Your task to perform on an android device: Open Google Maps and go to "Timeline" Image 0: 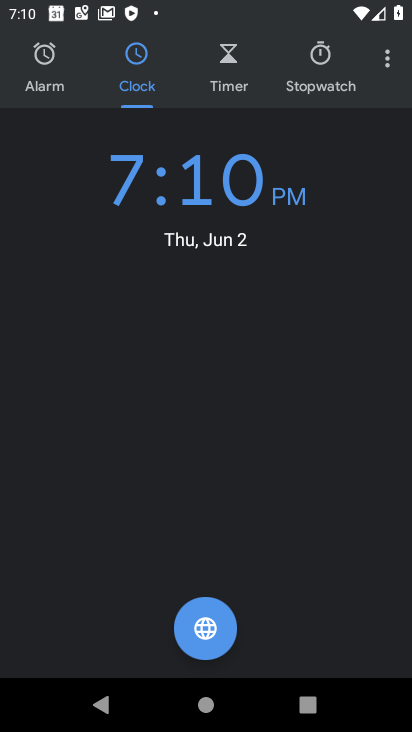
Step 0: press home button
Your task to perform on an android device: Open Google Maps and go to "Timeline" Image 1: 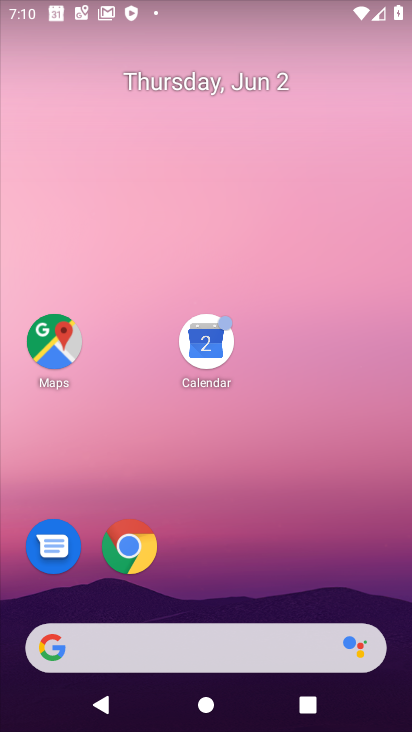
Step 1: click (70, 342)
Your task to perform on an android device: Open Google Maps and go to "Timeline" Image 2: 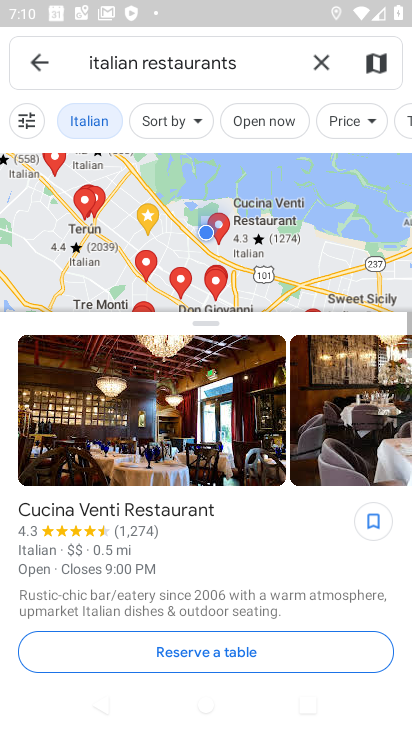
Step 2: click (39, 55)
Your task to perform on an android device: Open Google Maps and go to "Timeline" Image 3: 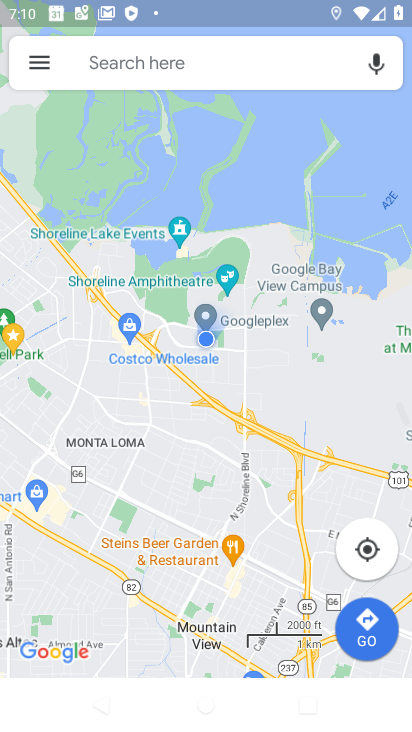
Step 3: click (51, 75)
Your task to perform on an android device: Open Google Maps and go to "Timeline" Image 4: 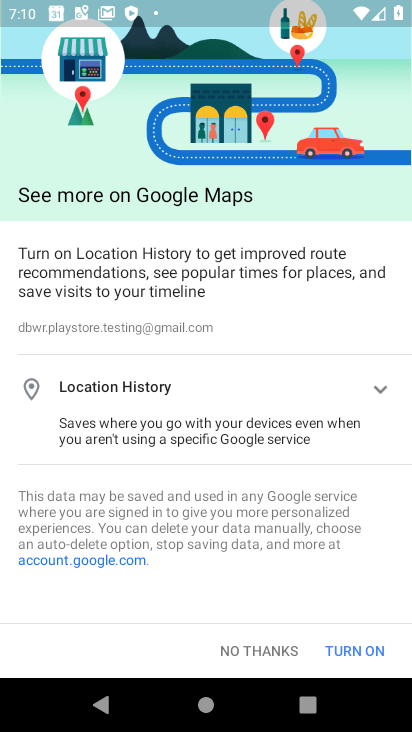
Step 4: click (243, 651)
Your task to perform on an android device: Open Google Maps and go to "Timeline" Image 5: 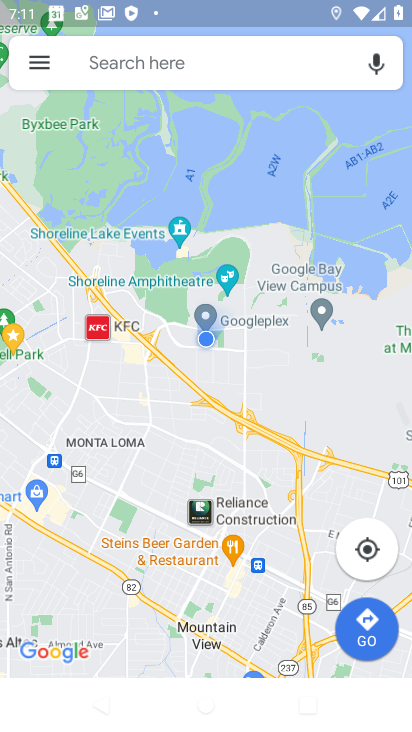
Step 5: click (43, 65)
Your task to perform on an android device: Open Google Maps and go to "Timeline" Image 6: 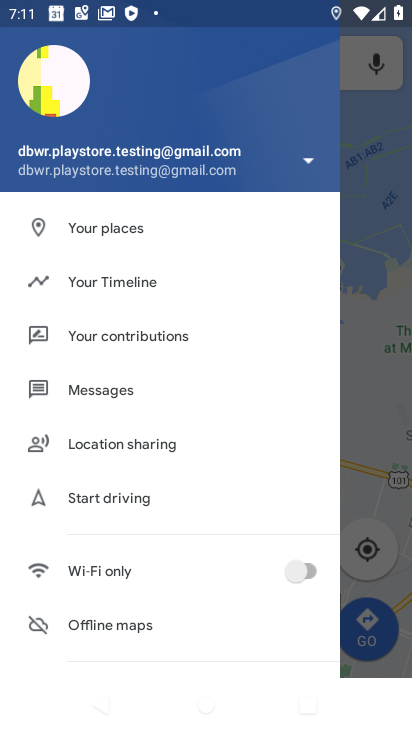
Step 6: click (126, 279)
Your task to perform on an android device: Open Google Maps and go to "Timeline" Image 7: 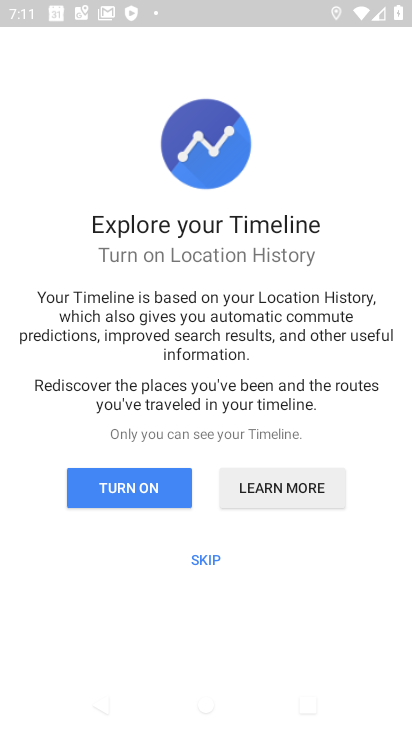
Step 7: click (221, 571)
Your task to perform on an android device: Open Google Maps and go to "Timeline" Image 8: 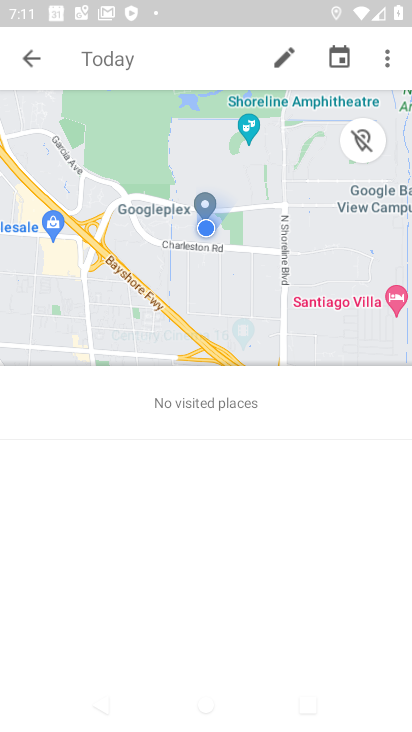
Step 8: task complete